Your task to perform on an android device: open sync settings in chrome Image 0: 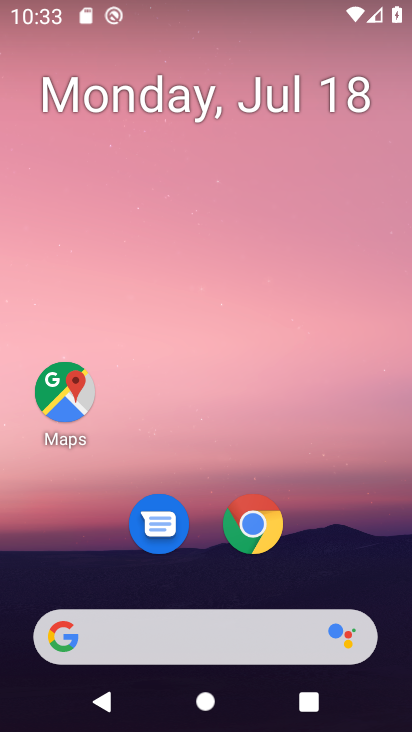
Step 0: click (268, 512)
Your task to perform on an android device: open sync settings in chrome Image 1: 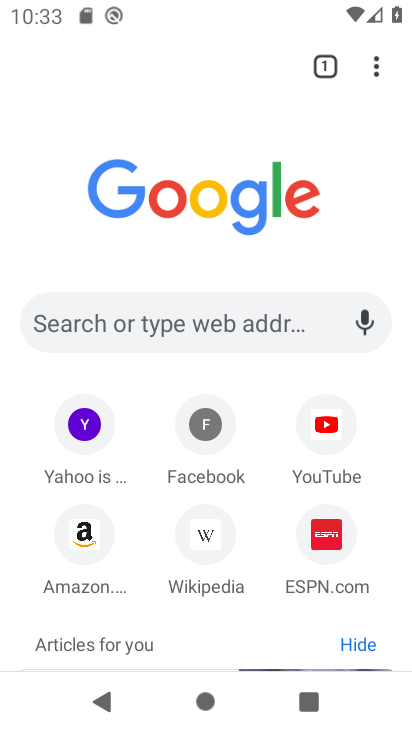
Step 1: click (369, 70)
Your task to perform on an android device: open sync settings in chrome Image 2: 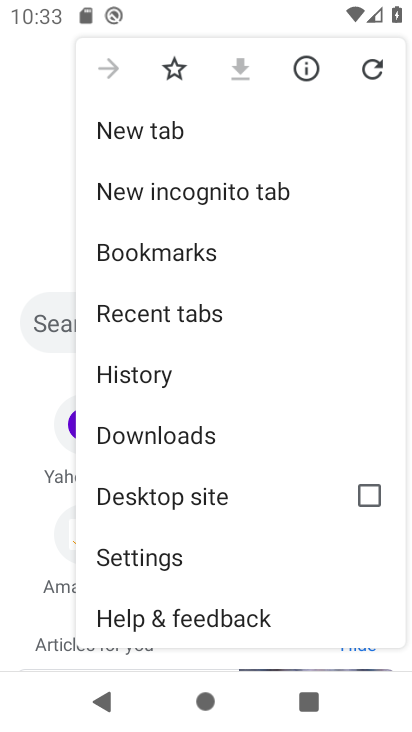
Step 2: click (167, 555)
Your task to perform on an android device: open sync settings in chrome Image 3: 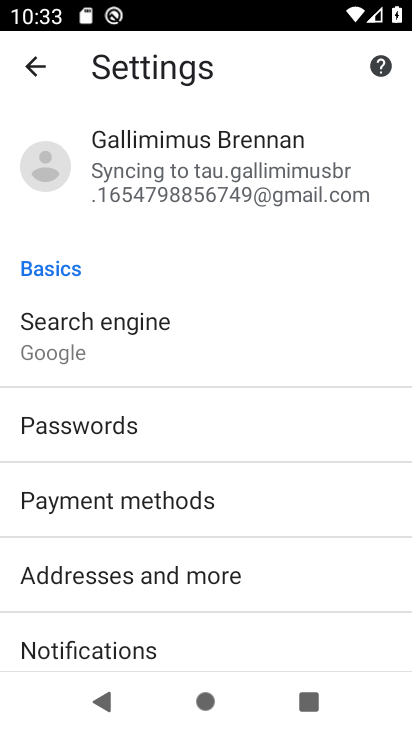
Step 3: click (257, 176)
Your task to perform on an android device: open sync settings in chrome Image 4: 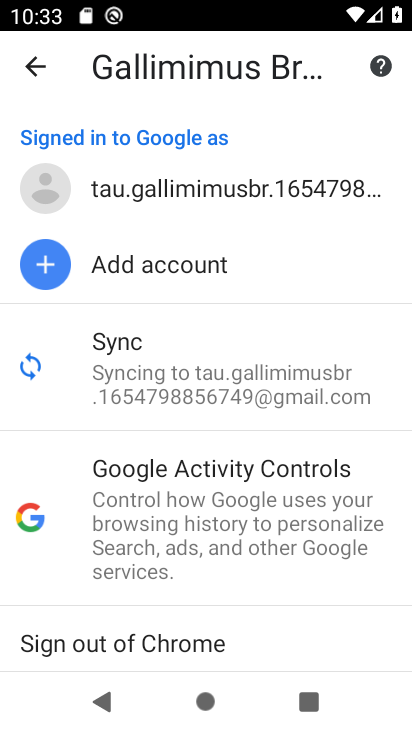
Step 4: click (218, 367)
Your task to perform on an android device: open sync settings in chrome Image 5: 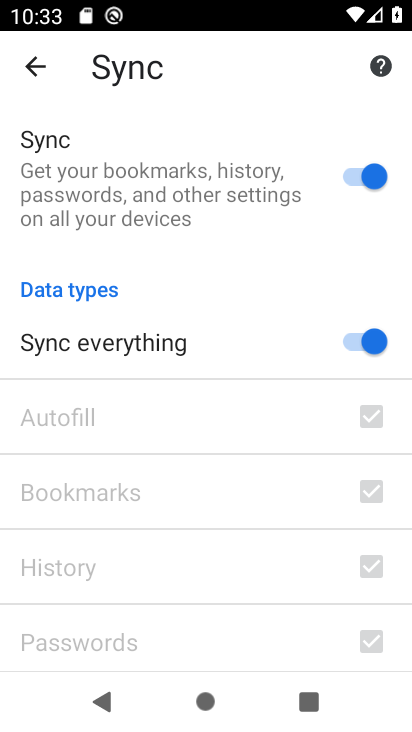
Step 5: task complete